Your task to perform on an android device: turn off location Image 0: 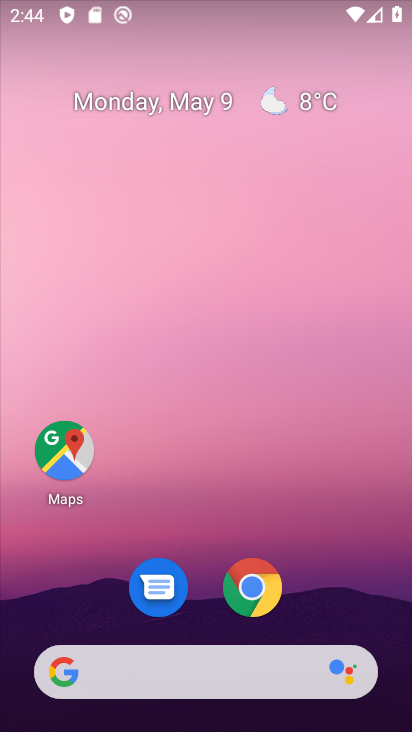
Step 0: drag from (223, 532) to (236, 175)
Your task to perform on an android device: turn off location Image 1: 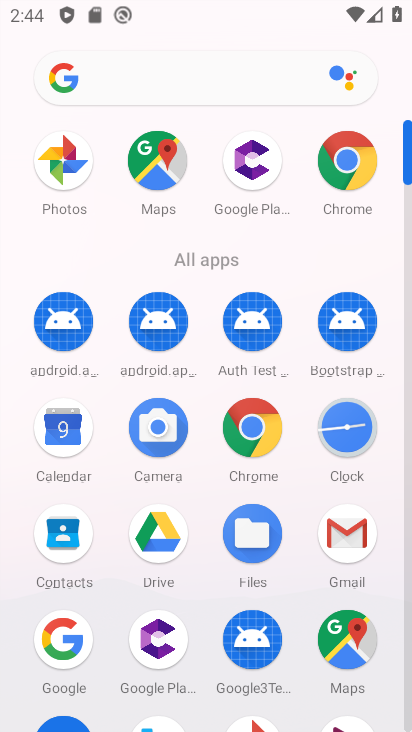
Step 1: drag from (199, 341) to (194, 115)
Your task to perform on an android device: turn off location Image 2: 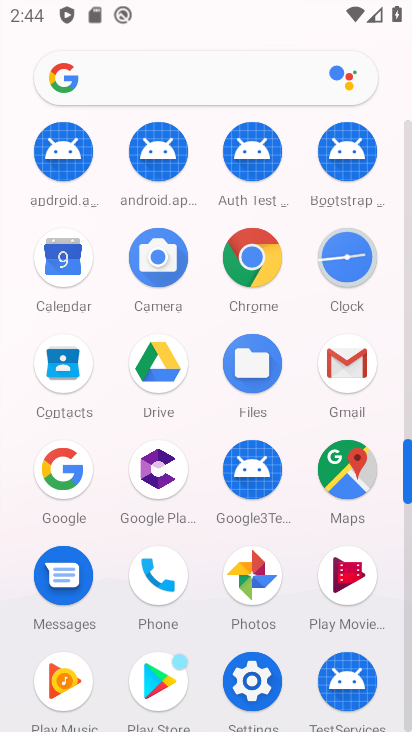
Step 2: click (242, 674)
Your task to perform on an android device: turn off location Image 3: 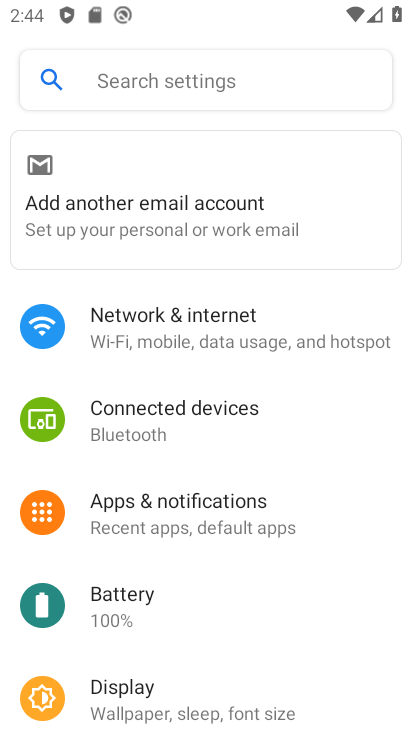
Step 3: drag from (175, 591) to (172, 294)
Your task to perform on an android device: turn off location Image 4: 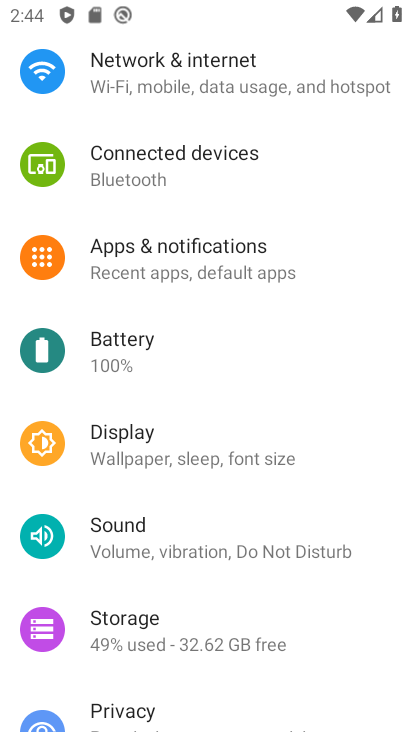
Step 4: drag from (202, 599) to (208, 316)
Your task to perform on an android device: turn off location Image 5: 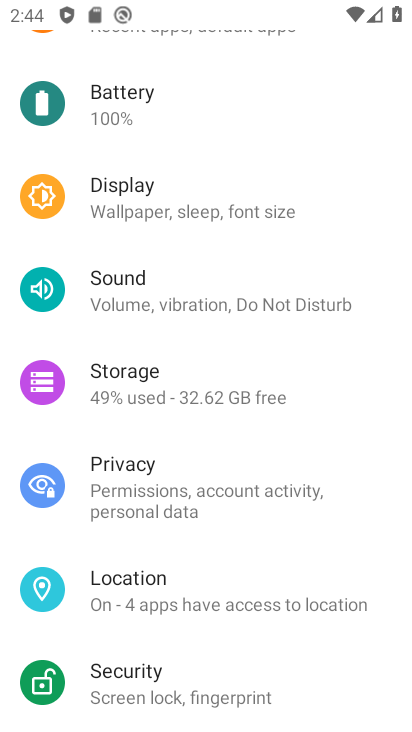
Step 5: click (213, 585)
Your task to perform on an android device: turn off location Image 6: 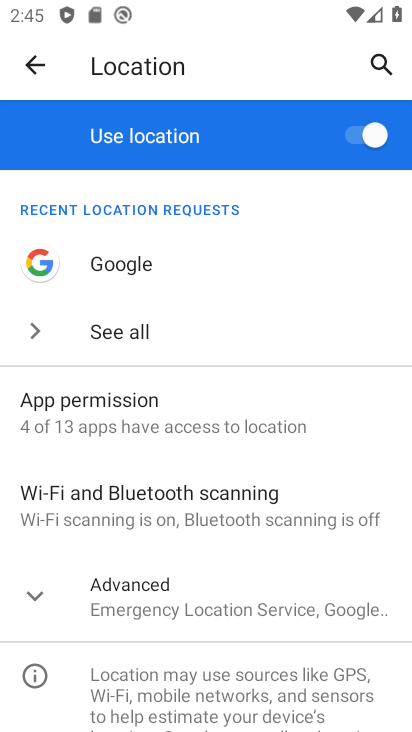
Step 6: click (368, 152)
Your task to perform on an android device: turn off location Image 7: 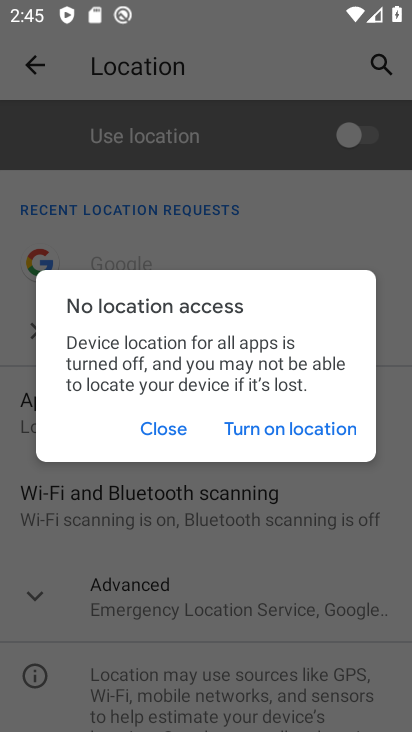
Step 7: click (188, 431)
Your task to perform on an android device: turn off location Image 8: 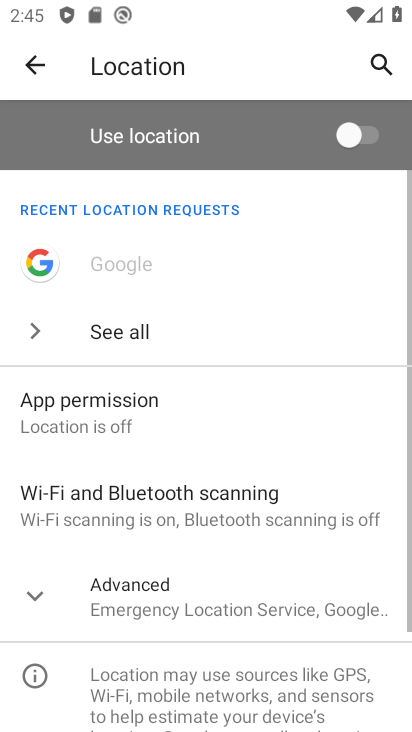
Step 8: task complete